Your task to perform on an android device: check the backup settings in the google photos Image 0: 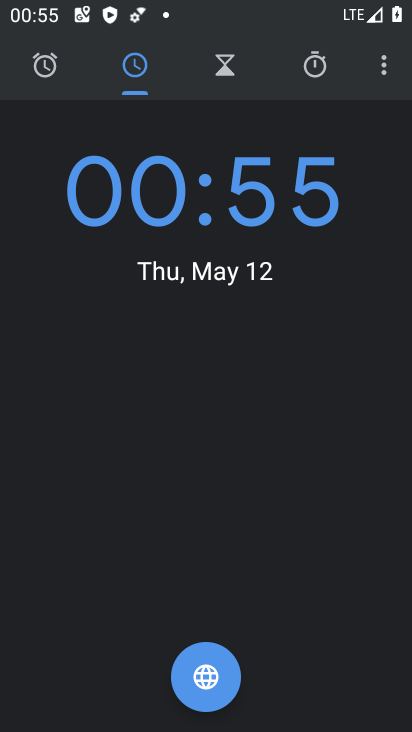
Step 0: press home button
Your task to perform on an android device: check the backup settings in the google photos Image 1: 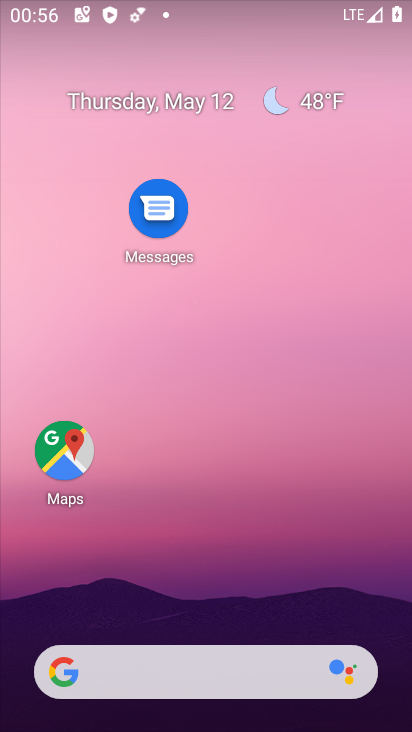
Step 1: drag from (188, 636) to (124, 10)
Your task to perform on an android device: check the backup settings in the google photos Image 2: 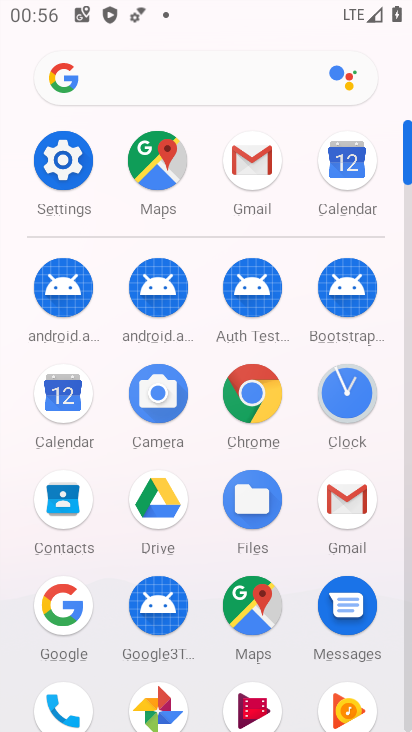
Step 2: click (167, 681)
Your task to perform on an android device: check the backup settings in the google photos Image 3: 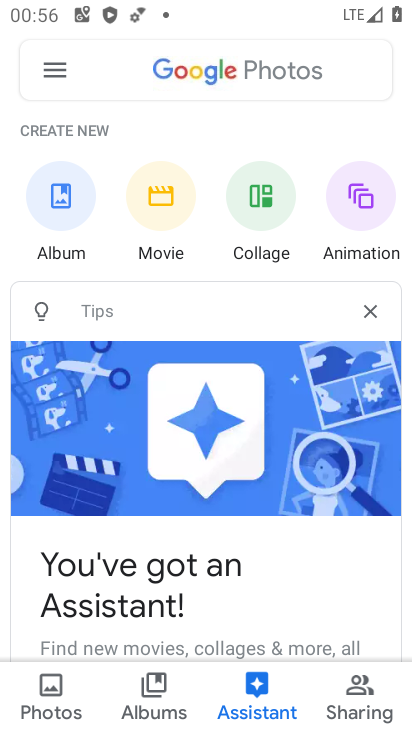
Step 3: click (48, 75)
Your task to perform on an android device: check the backup settings in the google photos Image 4: 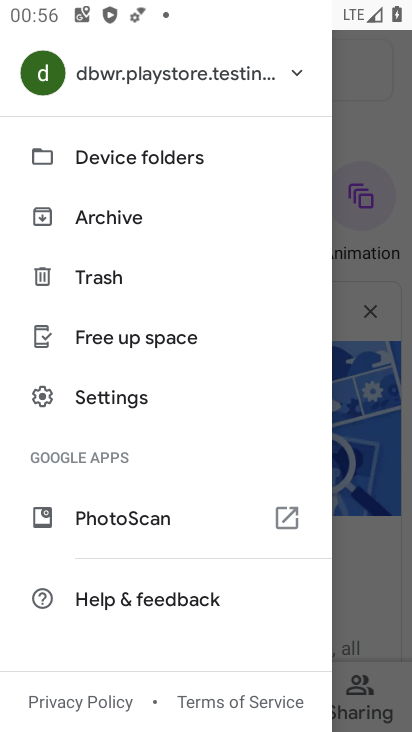
Step 4: click (106, 381)
Your task to perform on an android device: check the backup settings in the google photos Image 5: 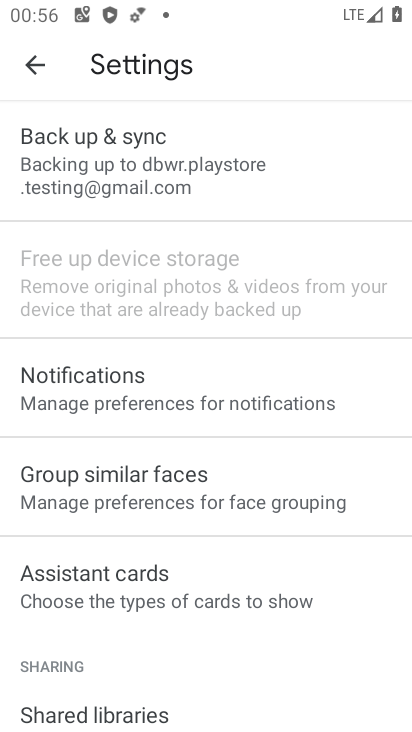
Step 5: click (135, 169)
Your task to perform on an android device: check the backup settings in the google photos Image 6: 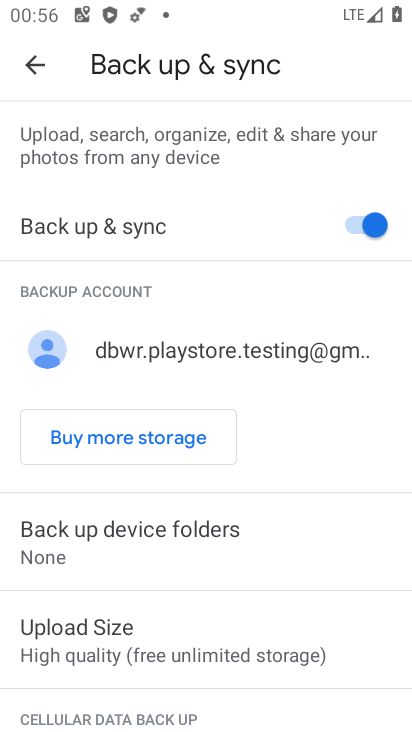
Step 6: task complete